Your task to perform on an android device: Go to Reddit.com Image 0: 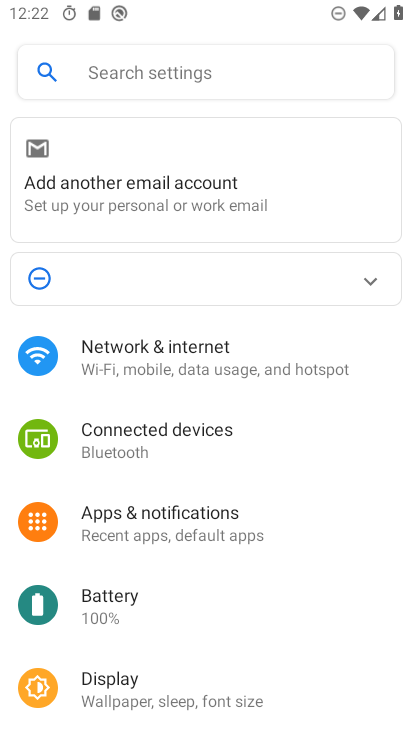
Step 0: press home button
Your task to perform on an android device: Go to Reddit.com Image 1: 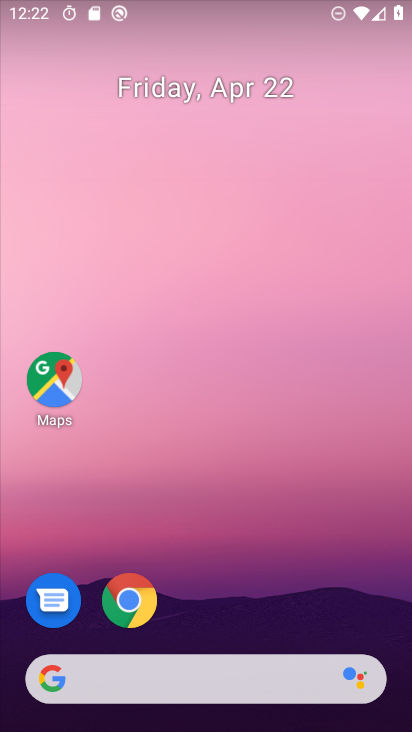
Step 1: click (130, 603)
Your task to perform on an android device: Go to Reddit.com Image 2: 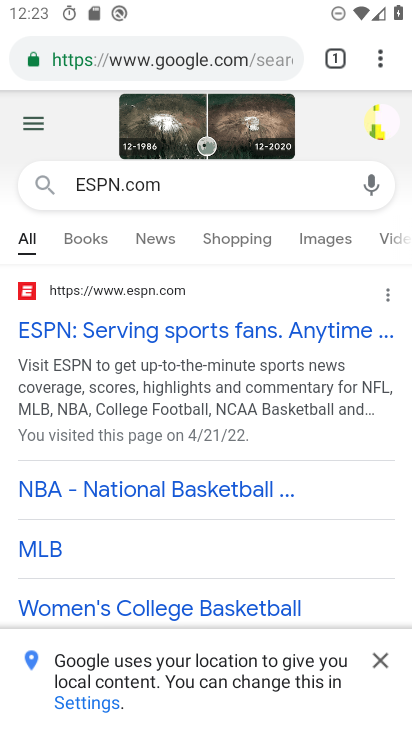
Step 2: click (276, 60)
Your task to perform on an android device: Go to Reddit.com Image 3: 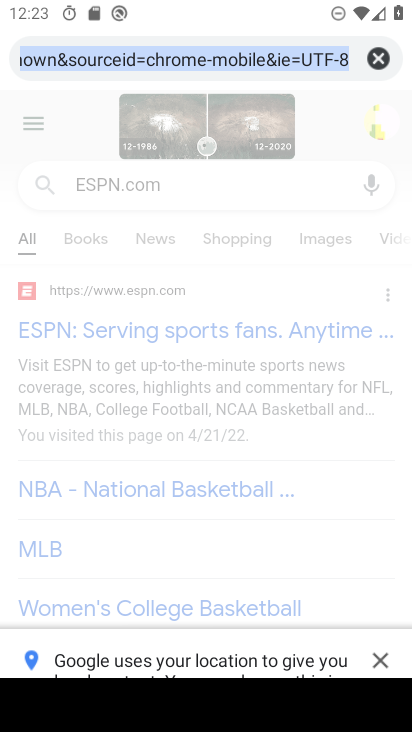
Step 3: click (379, 62)
Your task to perform on an android device: Go to Reddit.com Image 4: 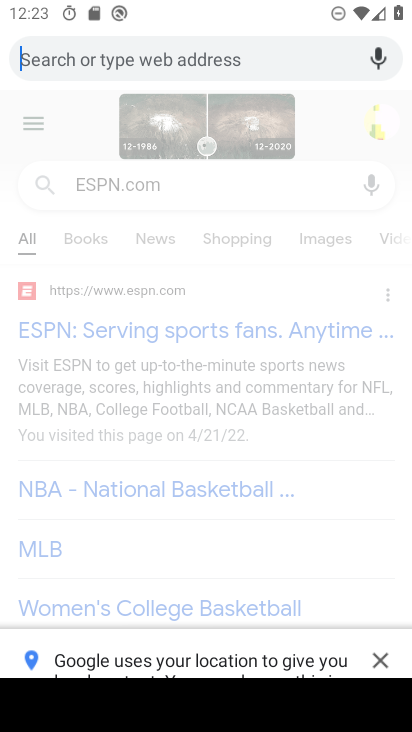
Step 4: type "Reddit.com"
Your task to perform on an android device: Go to Reddit.com Image 5: 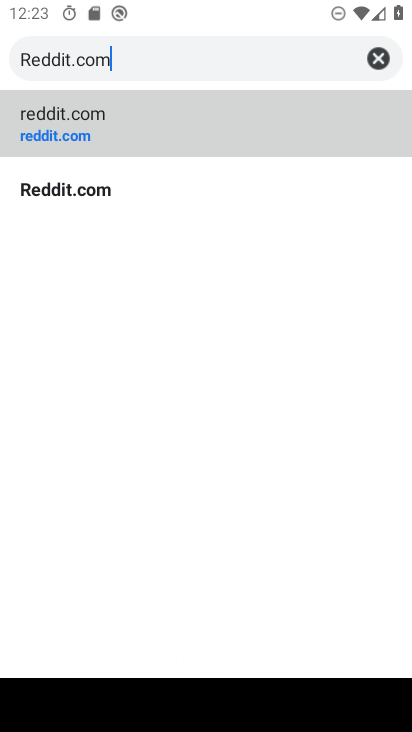
Step 5: type ""
Your task to perform on an android device: Go to Reddit.com Image 6: 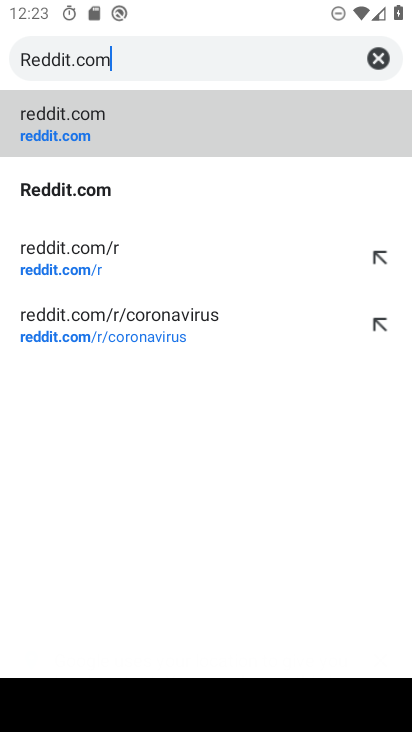
Step 6: click (88, 196)
Your task to perform on an android device: Go to Reddit.com Image 7: 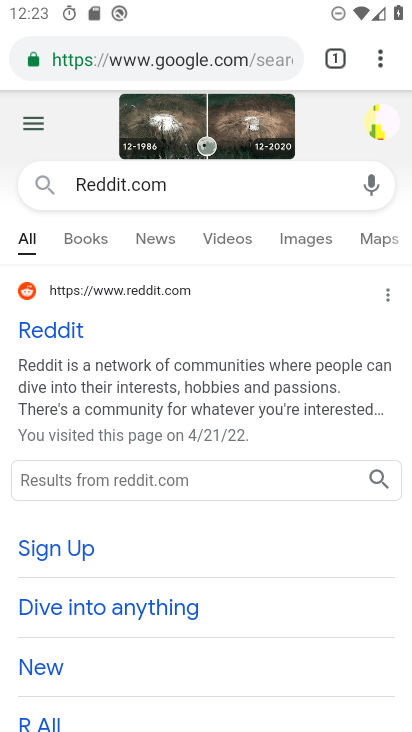
Step 7: task complete